Your task to perform on an android device: Go to Amazon Image 0: 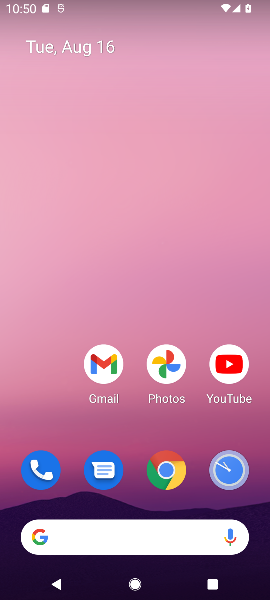
Step 0: click (173, 469)
Your task to perform on an android device: Go to Amazon Image 1: 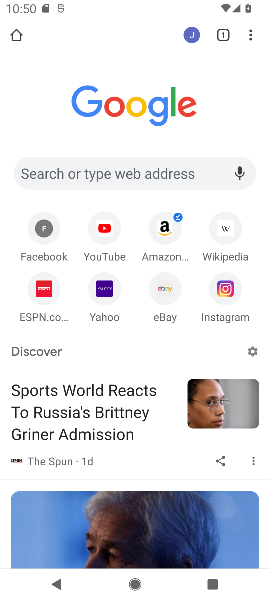
Step 1: click (167, 226)
Your task to perform on an android device: Go to Amazon Image 2: 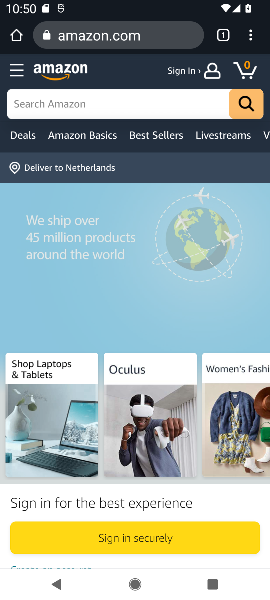
Step 2: task complete